Your task to perform on an android device: toggle pop-ups in chrome Image 0: 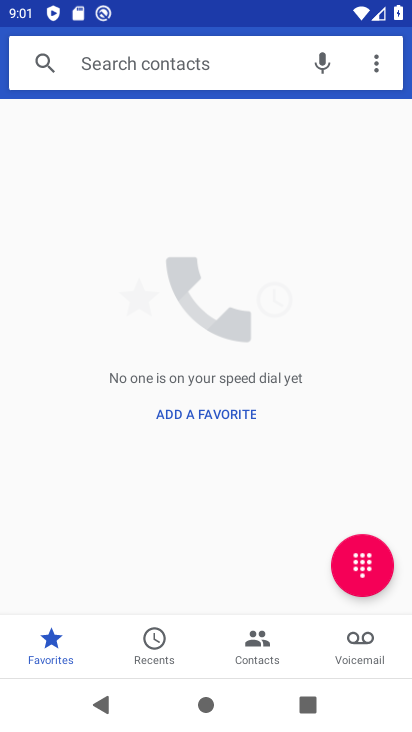
Step 0: press home button
Your task to perform on an android device: toggle pop-ups in chrome Image 1: 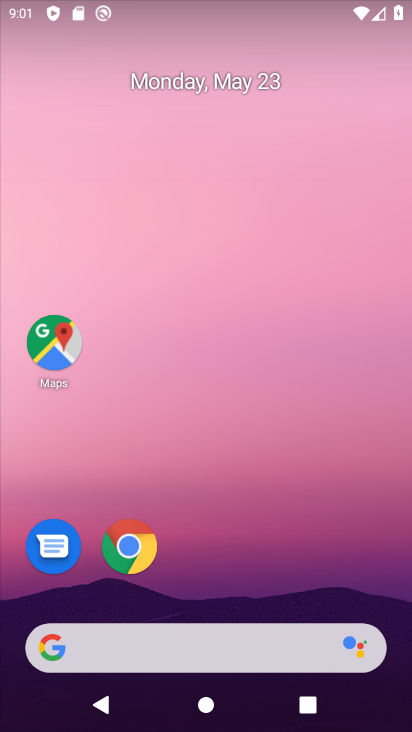
Step 1: click (129, 545)
Your task to perform on an android device: toggle pop-ups in chrome Image 2: 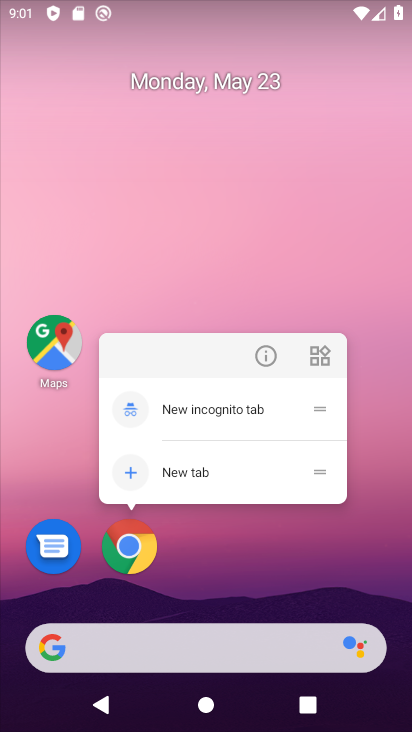
Step 2: click (238, 559)
Your task to perform on an android device: toggle pop-ups in chrome Image 3: 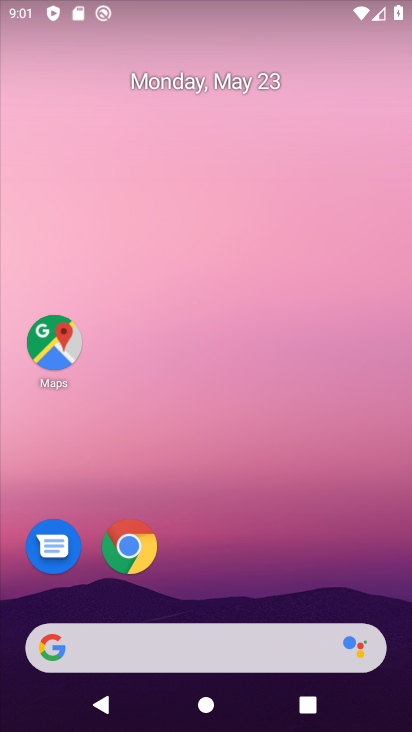
Step 3: drag from (313, 556) to (277, 94)
Your task to perform on an android device: toggle pop-ups in chrome Image 4: 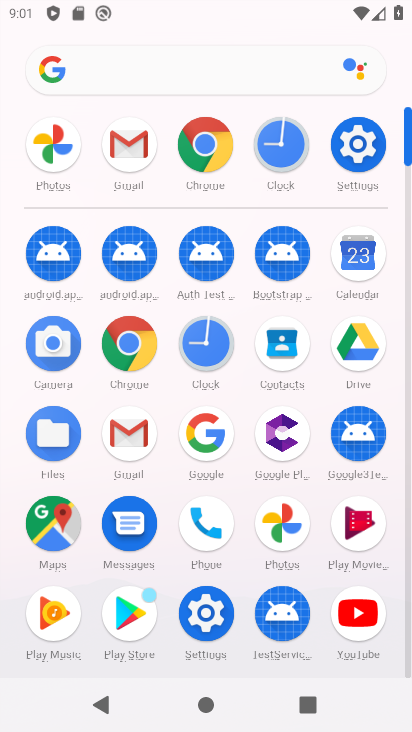
Step 4: click (116, 341)
Your task to perform on an android device: toggle pop-ups in chrome Image 5: 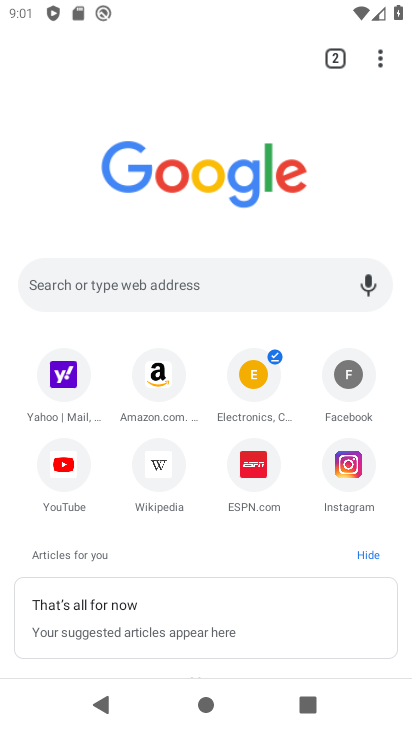
Step 5: drag from (382, 49) to (208, 485)
Your task to perform on an android device: toggle pop-ups in chrome Image 6: 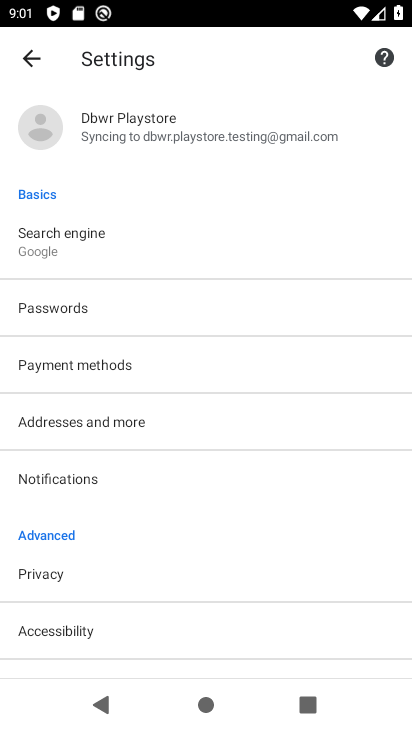
Step 6: drag from (78, 501) to (79, 256)
Your task to perform on an android device: toggle pop-ups in chrome Image 7: 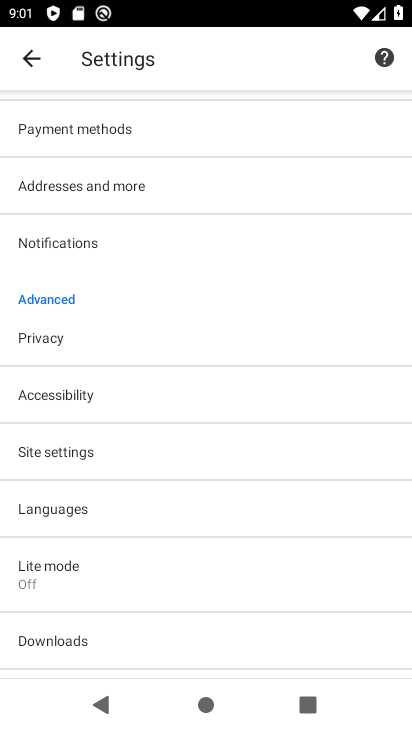
Step 7: click (103, 445)
Your task to perform on an android device: toggle pop-ups in chrome Image 8: 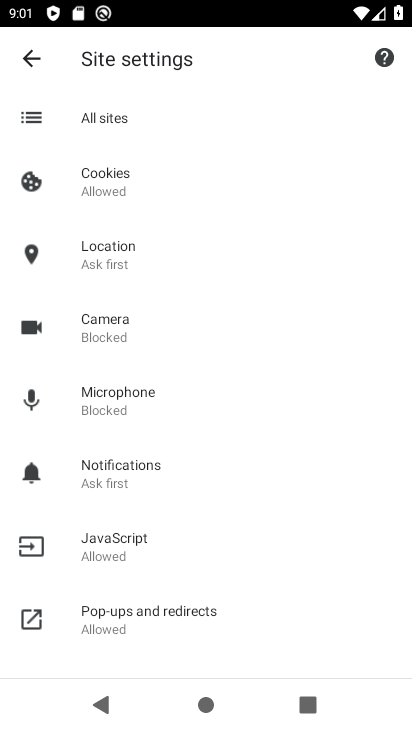
Step 8: click (160, 605)
Your task to perform on an android device: toggle pop-ups in chrome Image 9: 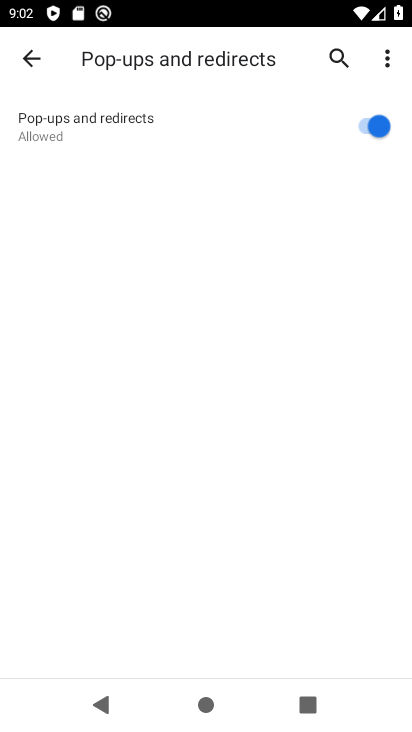
Step 9: click (358, 121)
Your task to perform on an android device: toggle pop-ups in chrome Image 10: 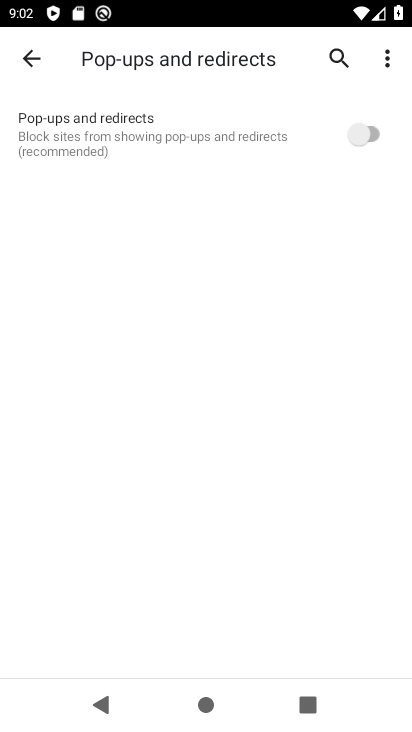
Step 10: task complete